Your task to perform on an android device: View the shopping cart on bestbuy.com. Image 0: 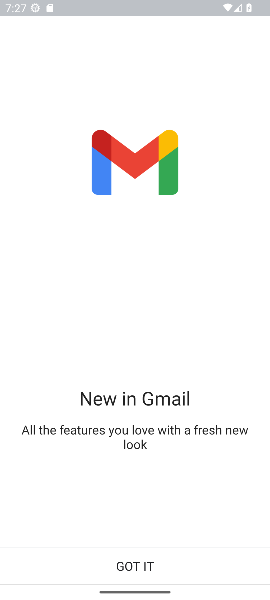
Step 0: press home button
Your task to perform on an android device: View the shopping cart on bestbuy.com. Image 1: 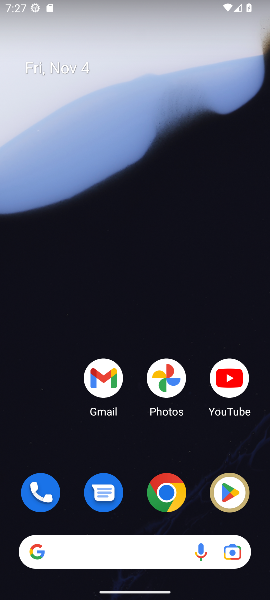
Step 1: drag from (132, 449) to (145, 36)
Your task to perform on an android device: View the shopping cart on bestbuy.com. Image 2: 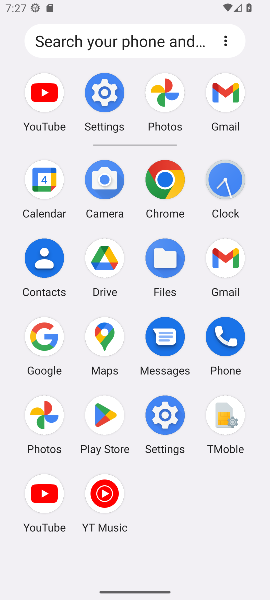
Step 2: click (167, 180)
Your task to perform on an android device: View the shopping cart on bestbuy.com. Image 3: 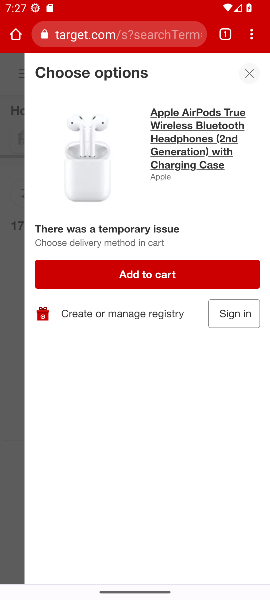
Step 3: click (154, 32)
Your task to perform on an android device: View the shopping cart on bestbuy.com. Image 4: 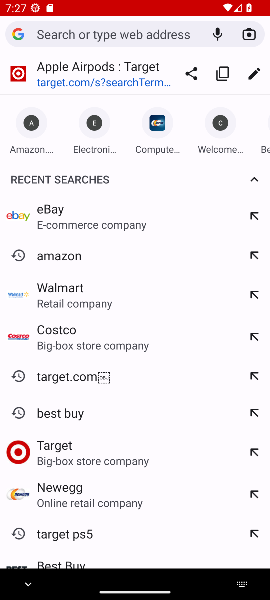
Step 4: type "bestbuy.com"
Your task to perform on an android device: View the shopping cart on bestbuy.com. Image 5: 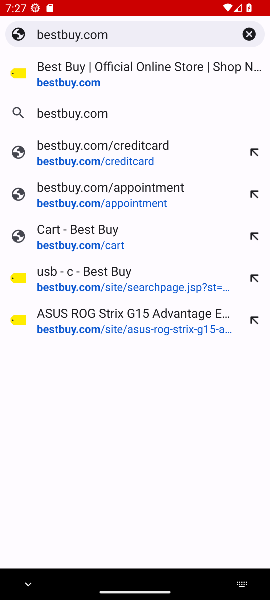
Step 5: press enter
Your task to perform on an android device: View the shopping cart on bestbuy.com. Image 6: 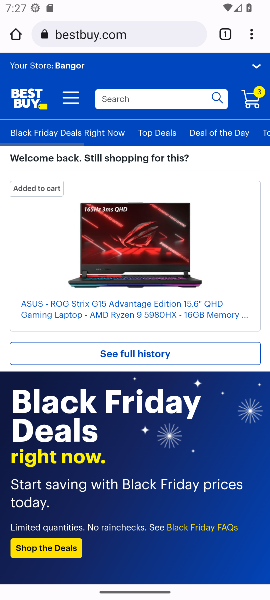
Step 6: click (257, 93)
Your task to perform on an android device: View the shopping cart on bestbuy.com. Image 7: 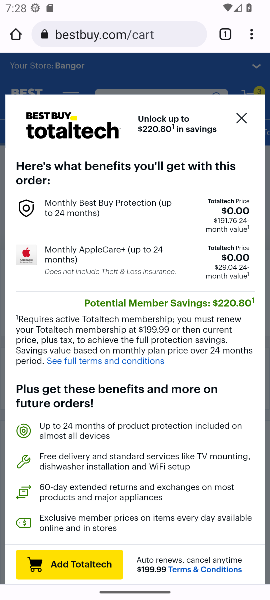
Step 7: click (239, 116)
Your task to perform on an android device: View the shopping cart on bestbuy.com. Image 8: 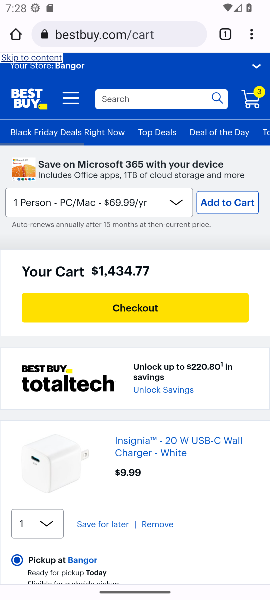
Step 8: task complete